Your task to perform on an android device: Show me popular games on the Play Store Image 0: 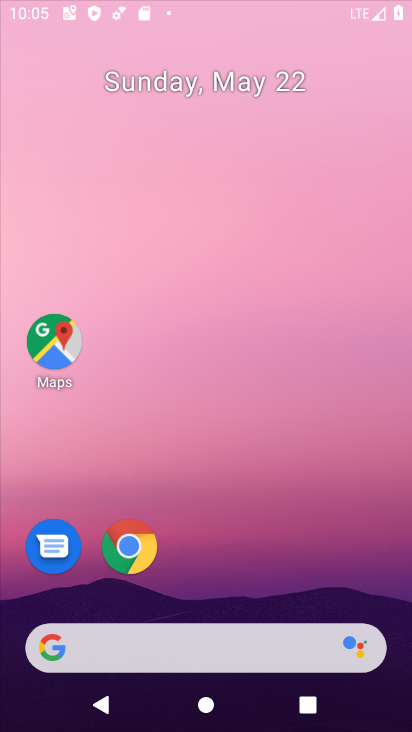
Step 0: click (298, 128)
Your task to perform on an android device: Show me popular games on the Play Store Image 1: 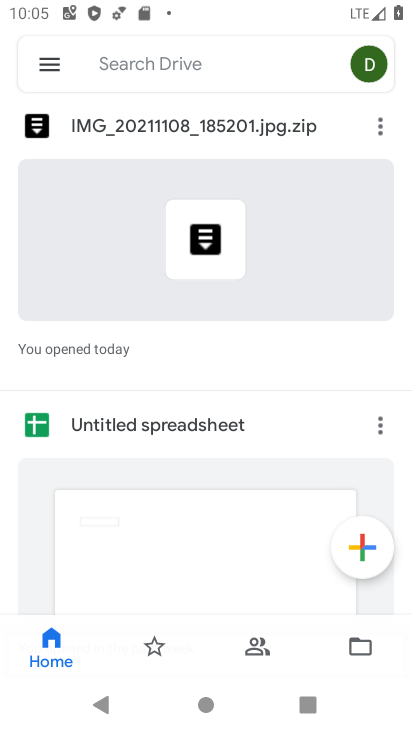
Step 1: press home button
Your task to perform on an android device: Show me popular games on the Play Store Image 2: 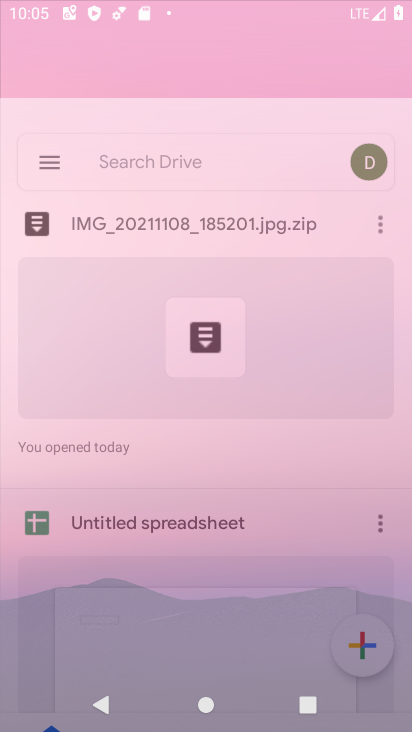
Step 2: drag from (180, 595) to (268, 126)
Your task to perform on an android device: Show me popular games on the Play Store Image 3: 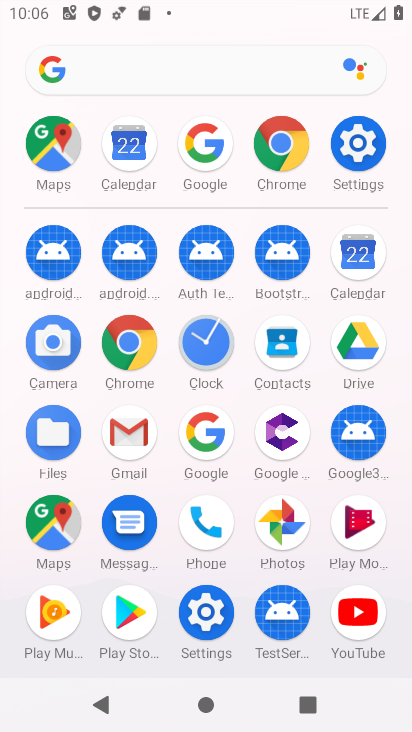
Step 3: click (142, 615)
Your task to perform on an android device: Show me popular games on the Play Store Image 4: 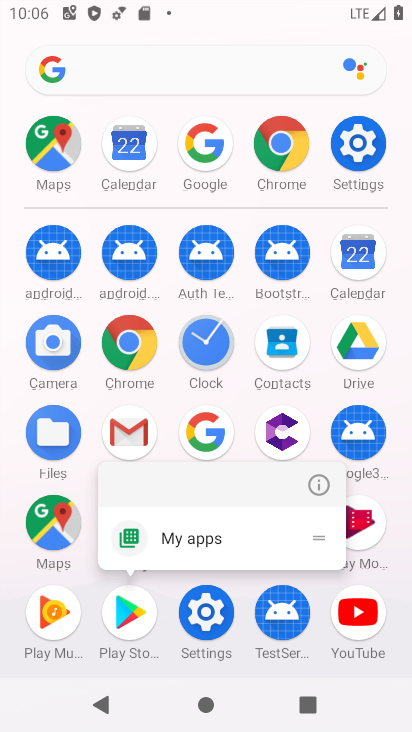
Step 4: click (314, 492)
Your task to perform on an android device: Show me popular games on the Play Store Image 5: 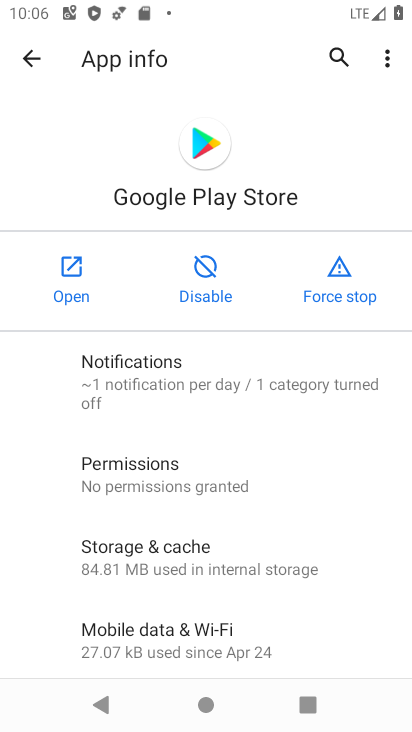
Step 5: click (80, 303)
Your task to perform on an android device: Show me popular games on the Play Store Image 6: 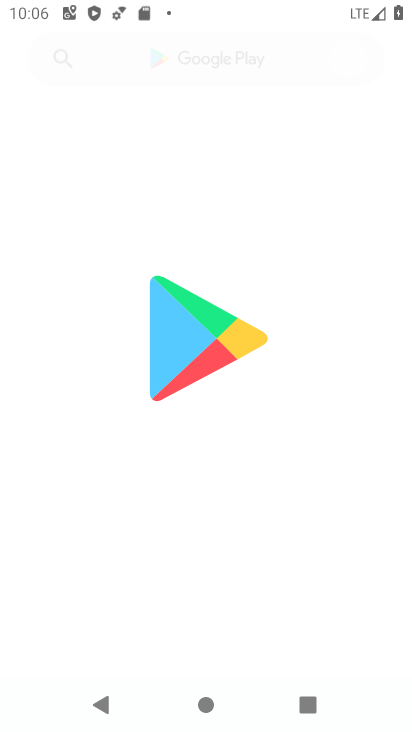
Step 6: drag from (209, 602) to (264, 347)
Your task to perform on an android device: Show me popular games on the Play Store Image 7: 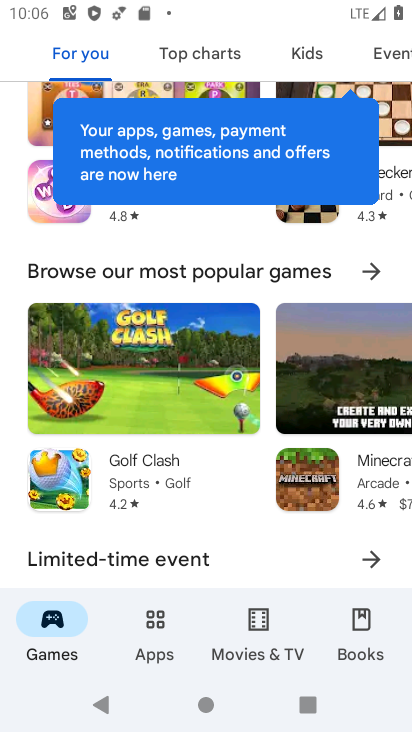
Step 7: click (373, 270)
Your task to perform on an android device: Show me popular games on the Play Store Image 8: 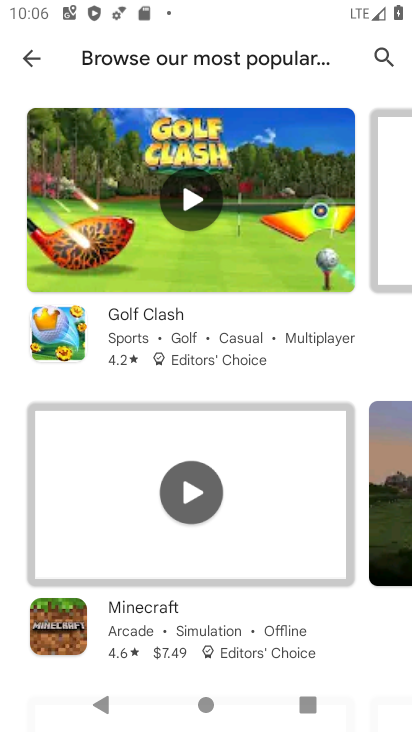
Step 8: task complete